Your task to perform on an android device: check google app version Image 0: 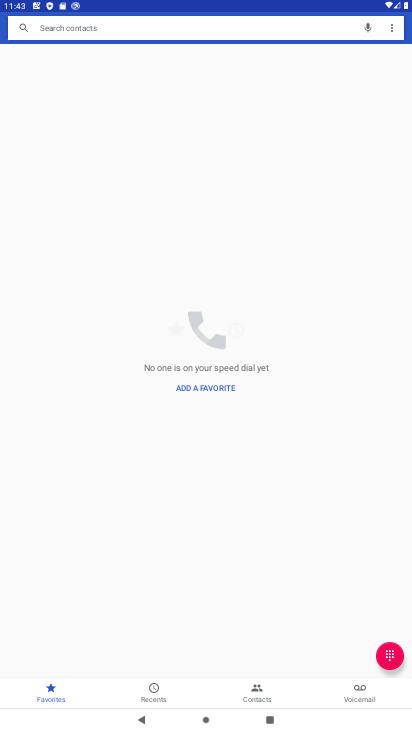
Step 0: press home button
Your task to perform on an android device: check google app version Image 1: 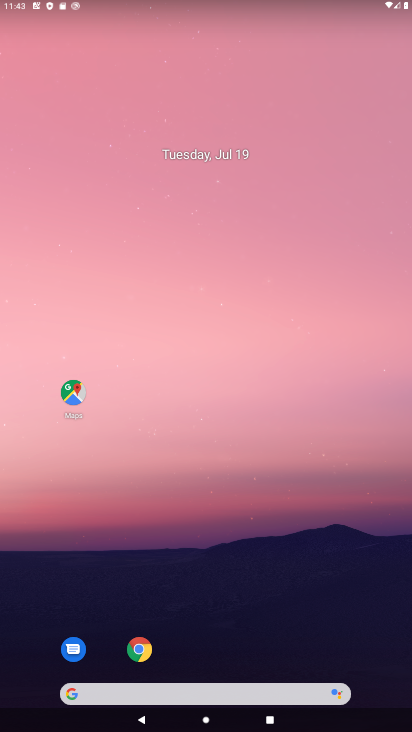
Step 1: drag from (144, 599) to (306, 276)
Your task to perform on an android device: check google app version Image 2: 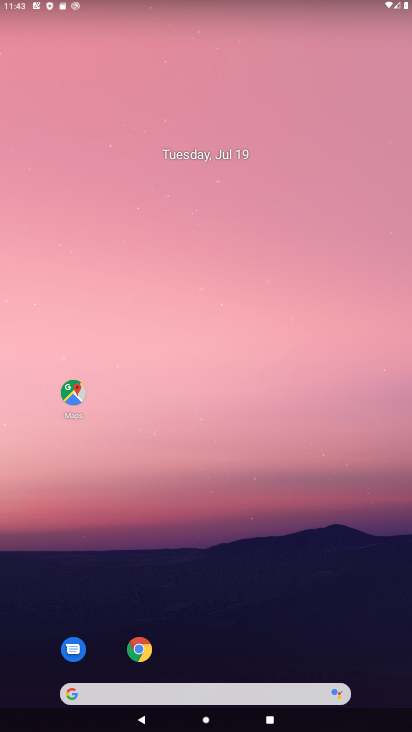
Step 2: drag from (279, 668) to (374, 188)
Your task to perform on an android device: check google app version Image 3: 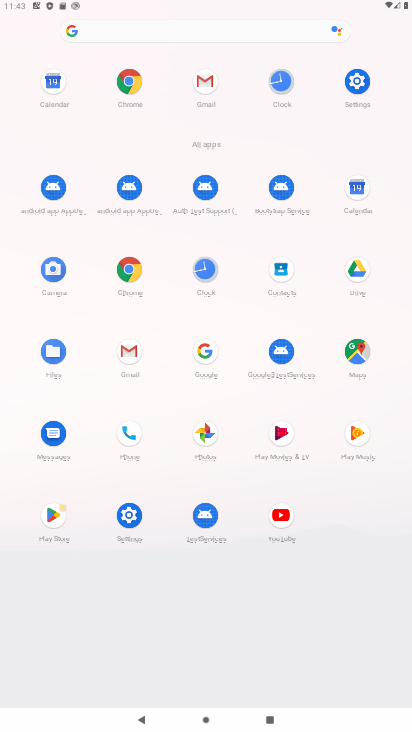
Step 3: click (204, 353)
Your task to perform on an android device: check google app version Image 4: 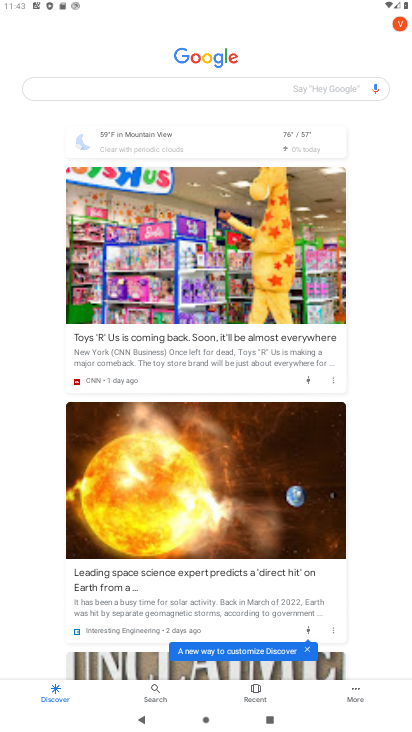
Step 4: click (400, 23)
Your task to perform on an android device: check google app version Image 5: 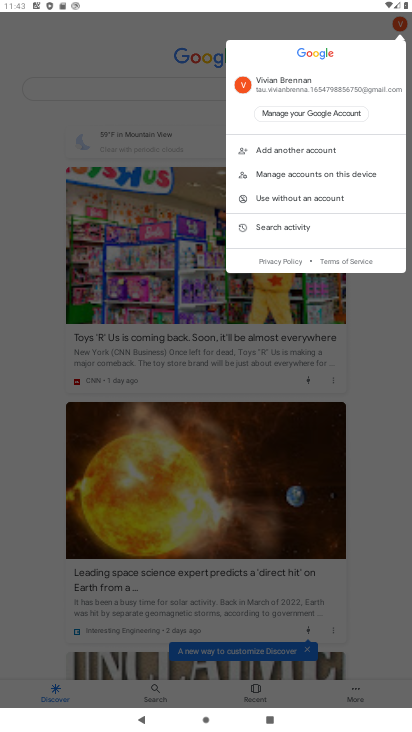
Step 5: click (103, 42)
Your task to perform on an android device: check google app version Image 6: 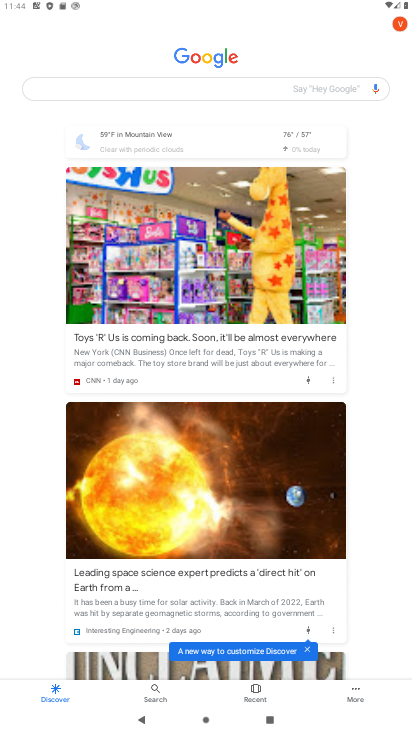
Step 6: click (361, 692)
Your task to perform on an android device: check google app version Image 7: 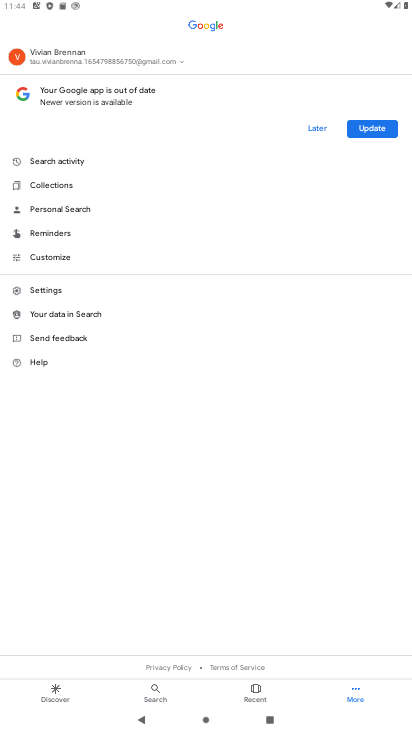
Step 7: task complete